Your task to perform on an android device: Open eBay Image 0: 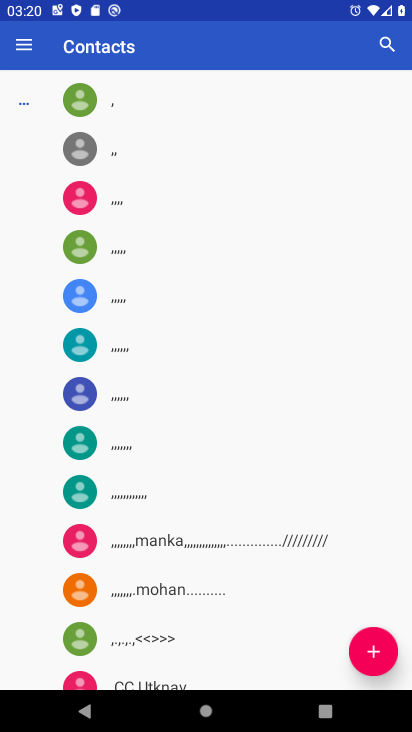
Step 0: press home button
Your task to perform on an android device: Open eBay Image 1: 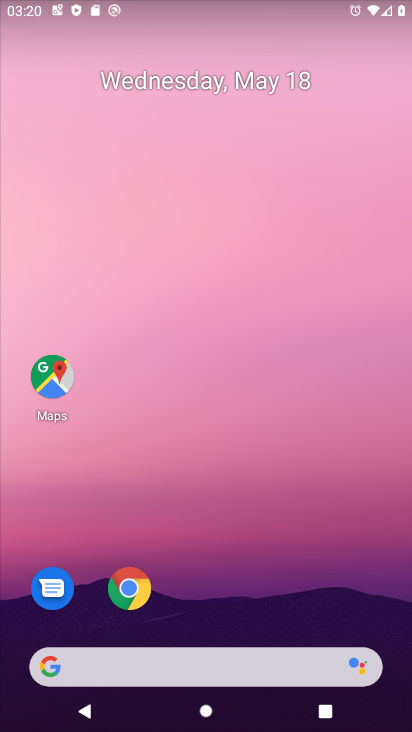
Step 1: click (127, 584)
Your task to perform on an android device: Open eBay Image 2: 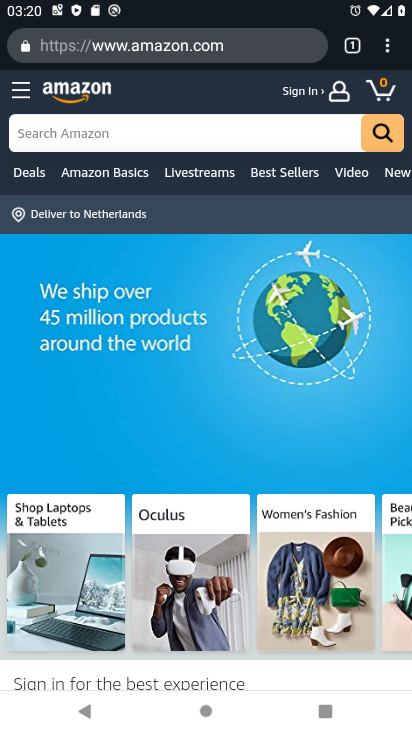
Step 2: click (356, 51)
Your task to perform on an android device: Open eBay Image 3: 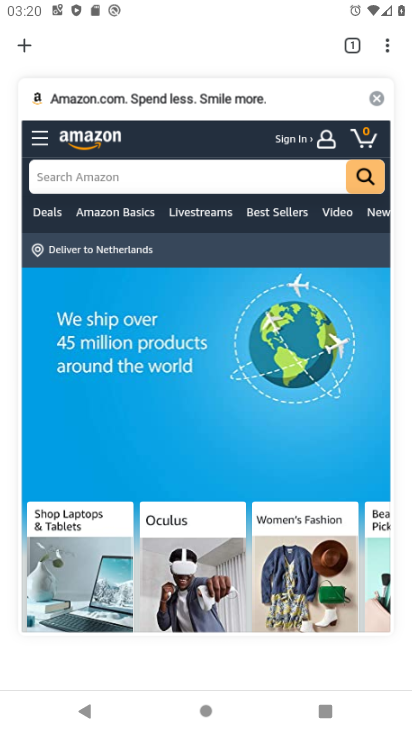
Step 3: click (372, 99)
Your task to perform on an android device: Open eBay Image 4: 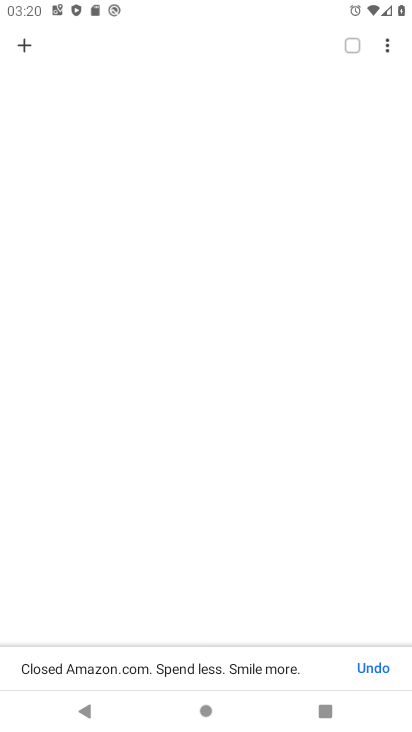
Step 4: click (21, 45)
Your task to perform on an android device: Open eBay Image 5: 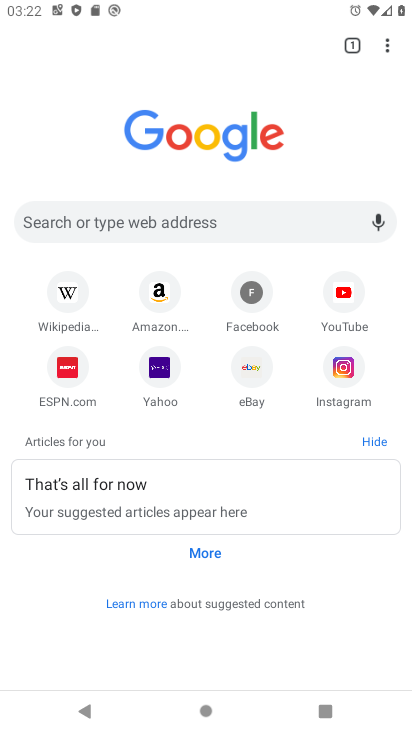
Step 5: click (254, 378)
Your task to perform on an android device: Open eBay Image 6: 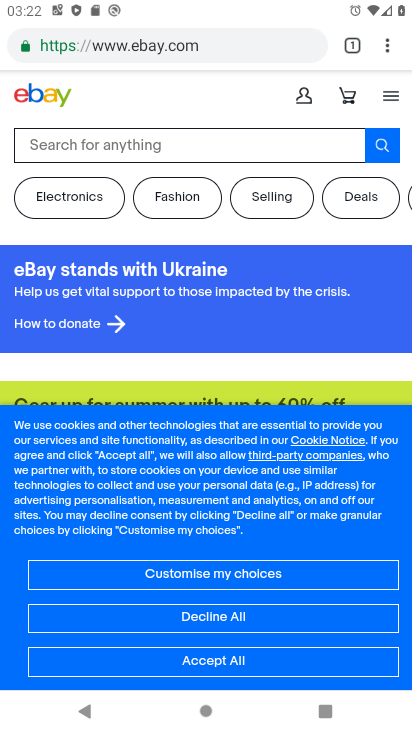
Step 6: task complete